Your task to perform on an android device: Search for Italian restaurants on Maps Image 0: 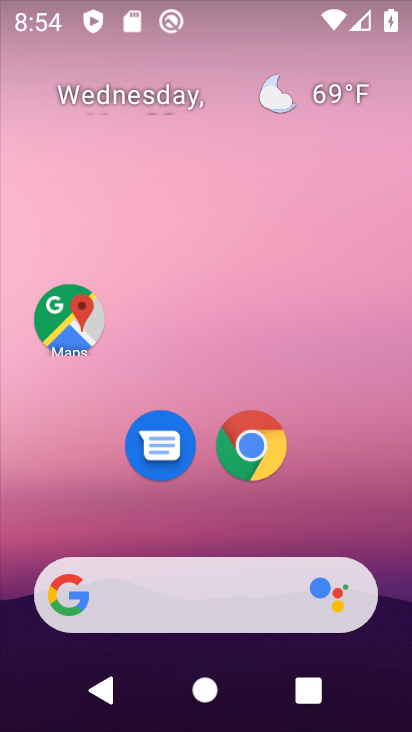
Step 0: click (70, 311)
Your task to perform on an android device: Search for Italian restaurants on Maps Image 1: 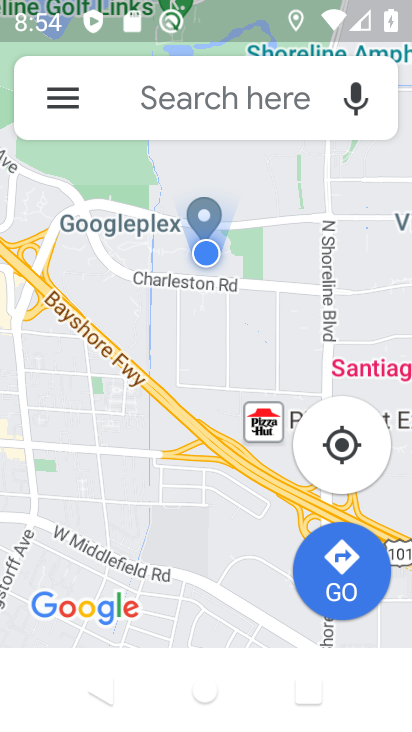
Step 1: click (247, 100)
Your task to perform on an android device: Search for Italian restaurants on Maps Image 2: 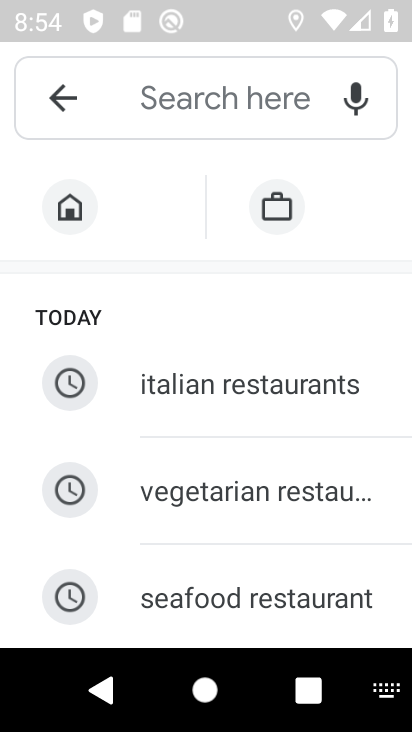
Step 2: type " Italian restaurants "
Your task to perform on an android device: Search for Italian restaurants on Maps Image 3: 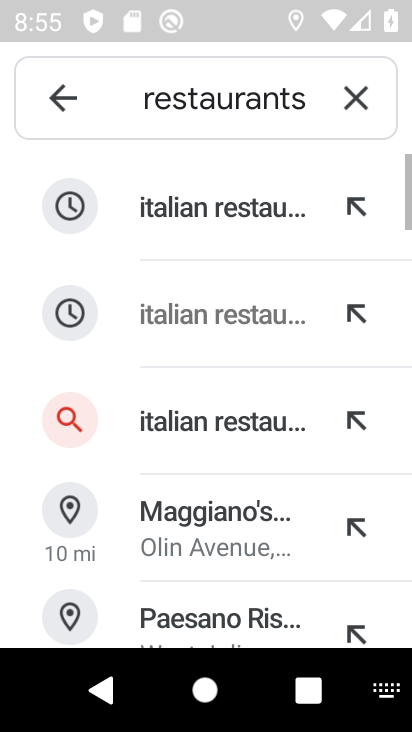
Step 3: click (197, 209)
Your task to perform on an android device: Search for Italian restaurants on Maps Image 4: 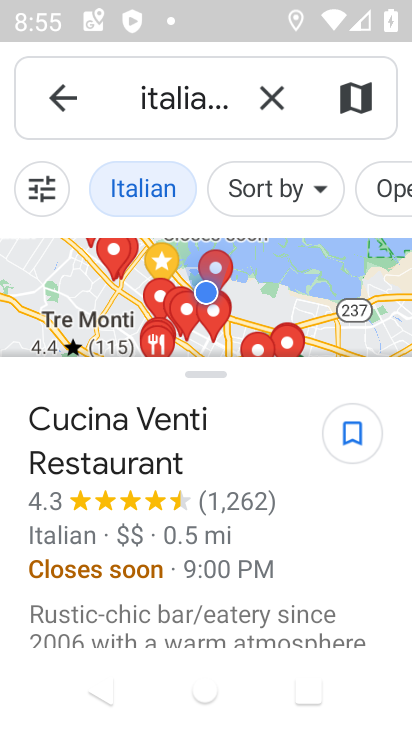
Step 4: task complete